Your task to perform on an android device: install app "Mercado Libre" Image 0: 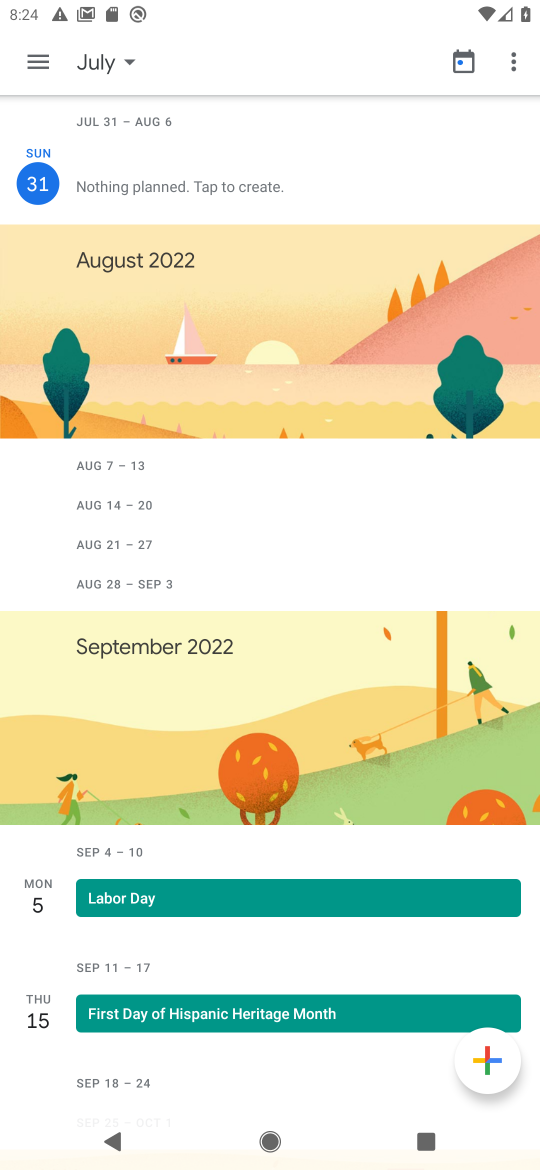
Step 0: press back button
Your task to perform on an android device: install app "Mercado Libre" Image 1: 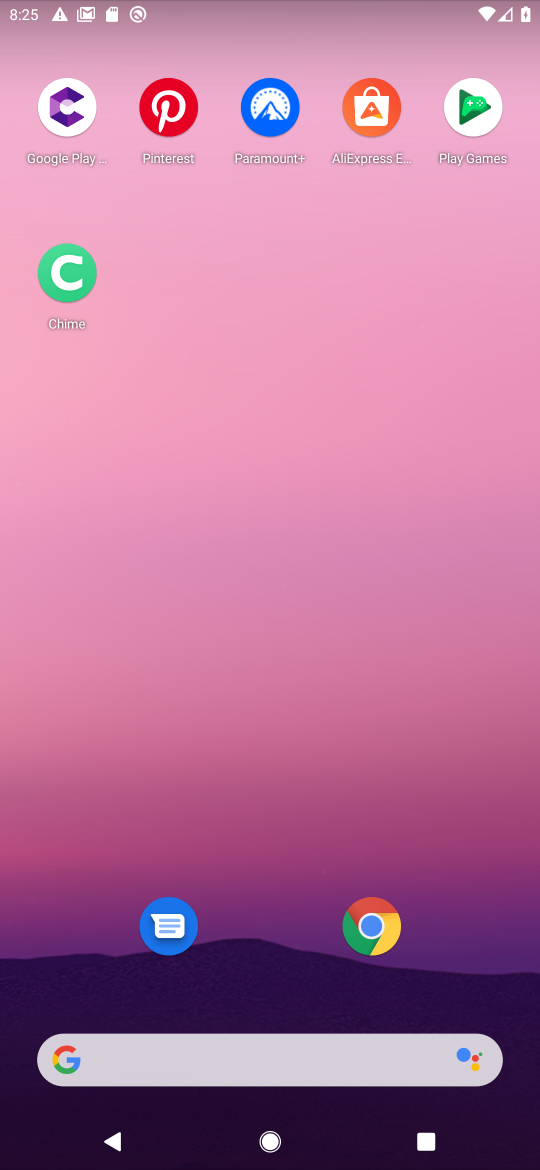
Step 1: drag from (277, 771) to (394, 66)
Your task to perform on an android device: install app "Mercado Libre" Image 2: 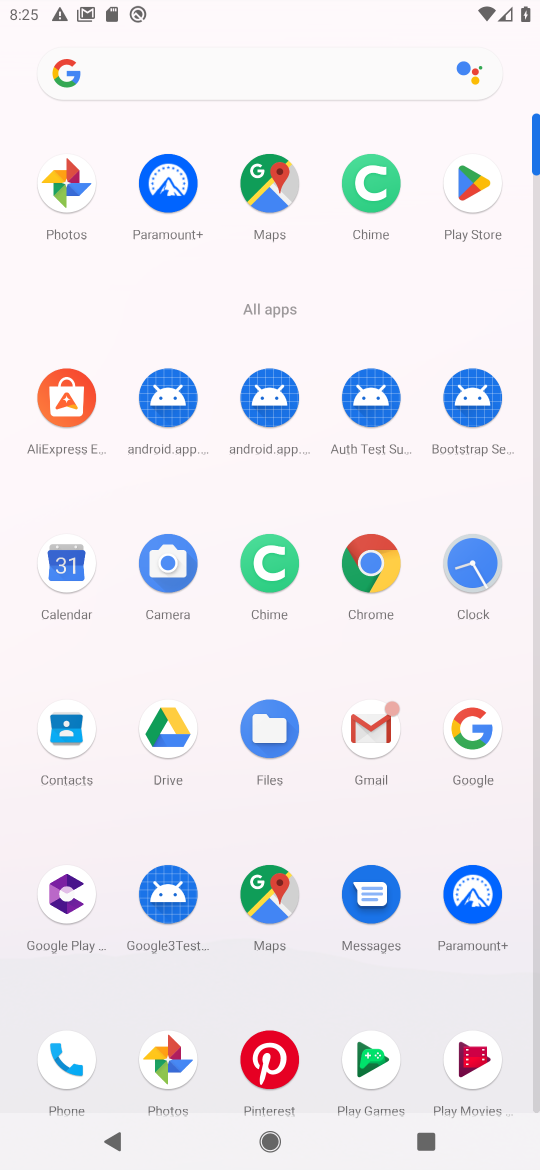
Step 2: click (460, 174)
Your task to perform on an android device: install app "Mercado Libre" Image 3: 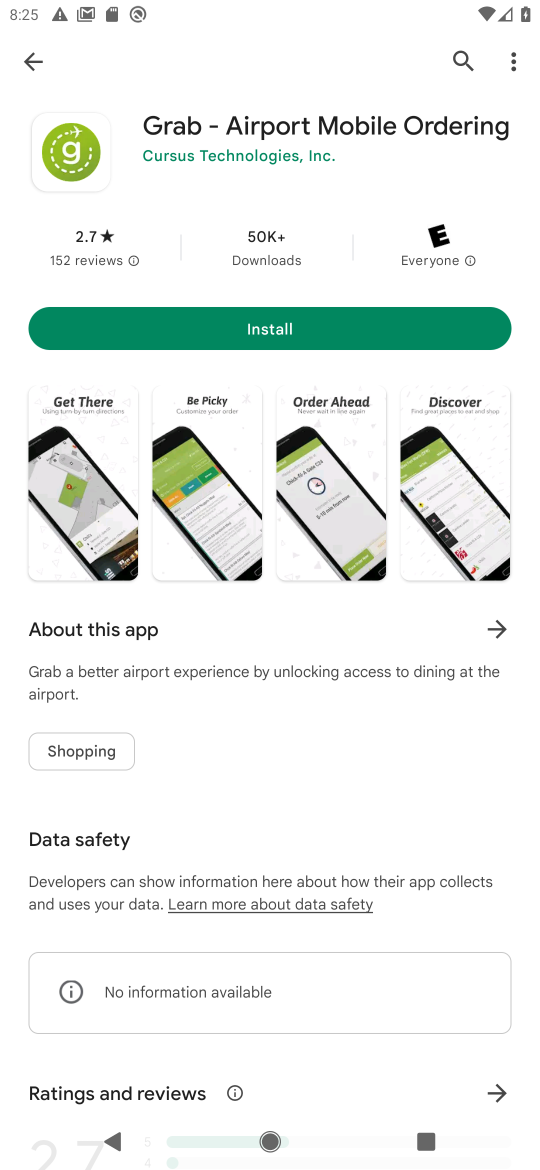
Step 3: click (462, 57)
Your task to perform on an android device: install app "Mercado Libre" Image 4: 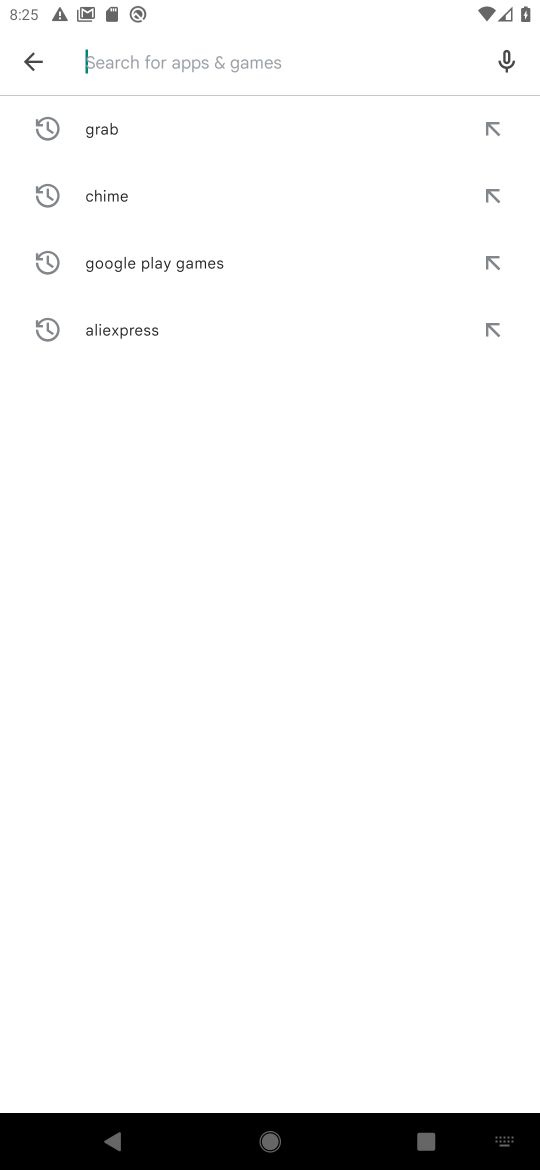
Step 4: click (243, 71)
Your task to perform on an android device: install app "Mercado Libre" Image 5: 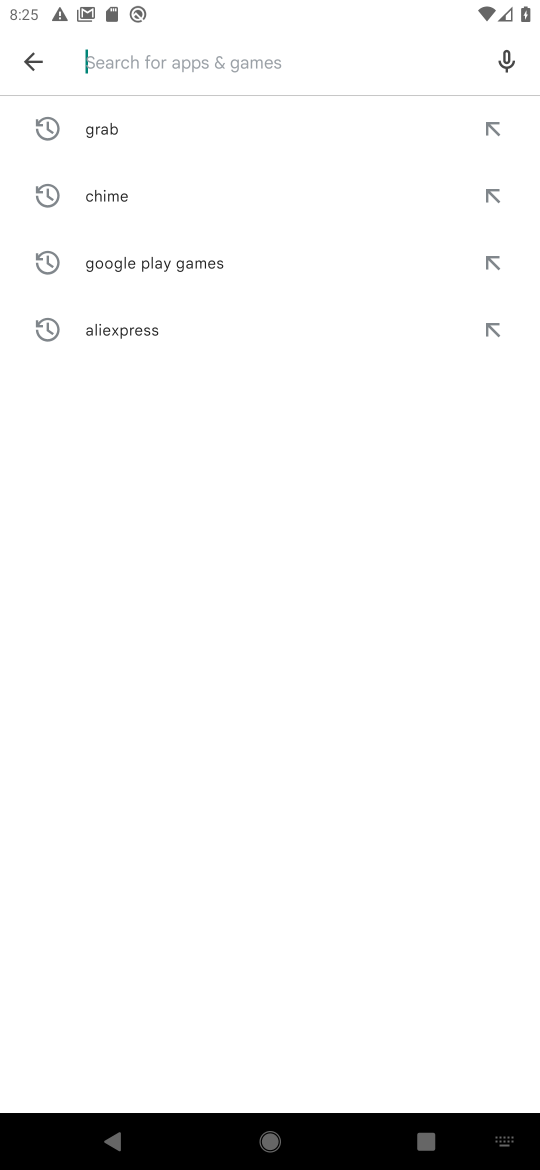
Step 5: type "mercado libre"
Your task to perform on an android device: install app "Mercado Libre" Image 6: 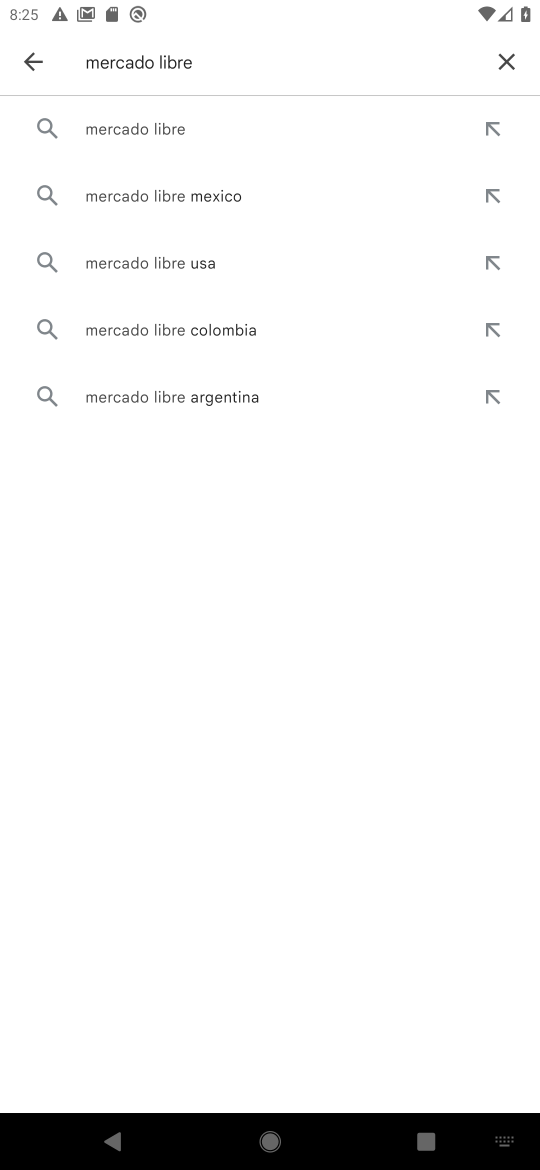
Step 6: click (142, 124)
Your task to perform on an android device: install app "Mercado Libre" Image 7: 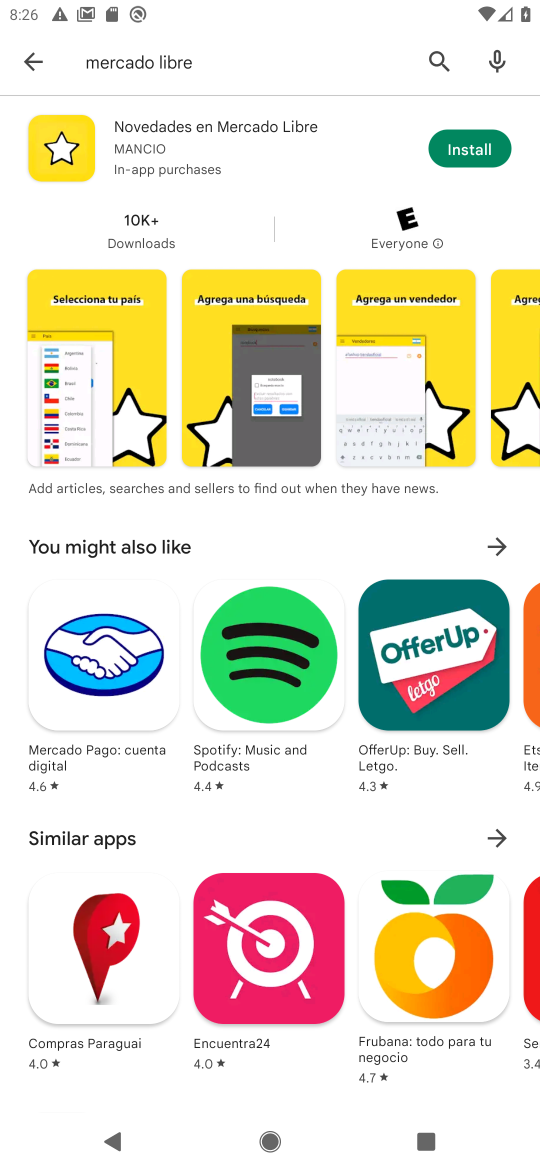
Step 7: click (448, 153)
Your task to perform on an android device: install app "Mercado Libre" Image 8: 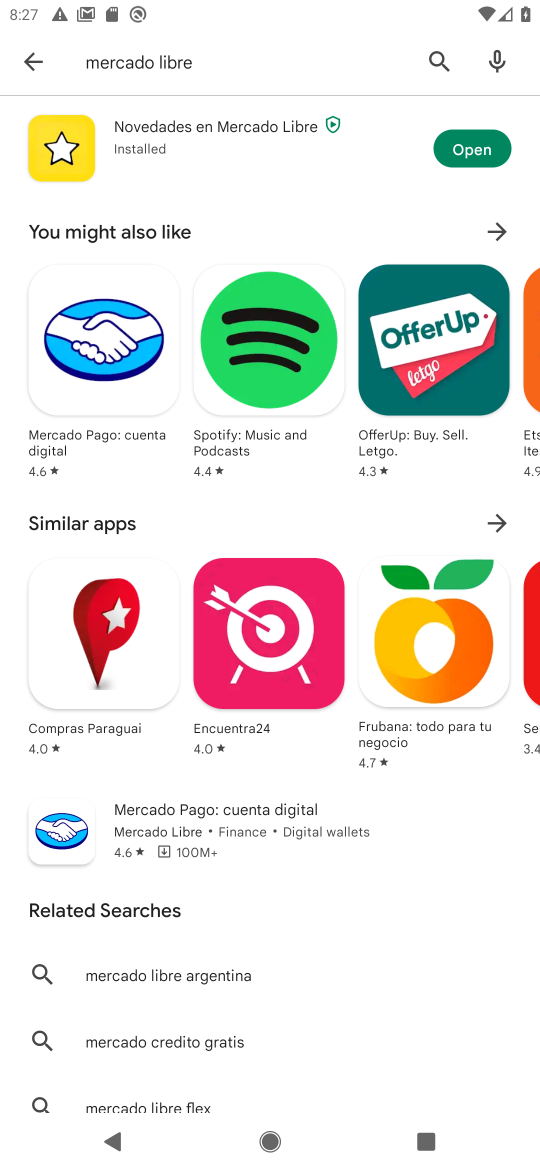
Step 8: task complete